Your task to perform on an android device: change the clock style Image 0: 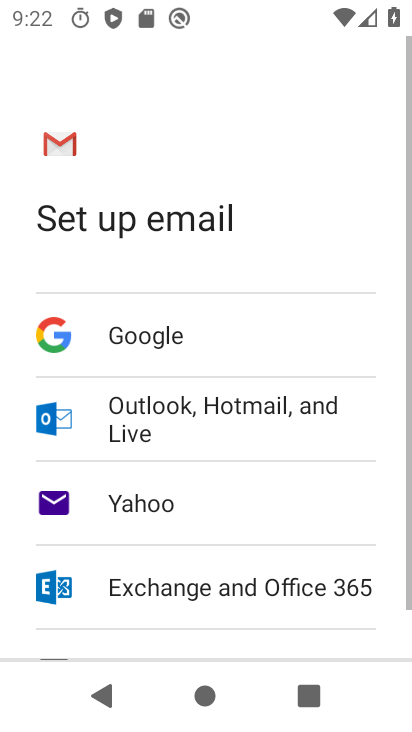
Step 0: press home button
Your task to perform on an android device: change the clock style Image 1: 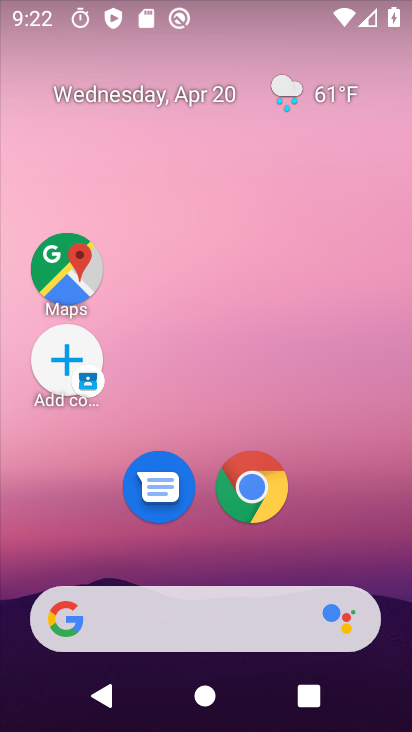
Step 1: drag from (330, 562) to (256, 169)
Your task to perform on an android device: change the clock style Image 2: 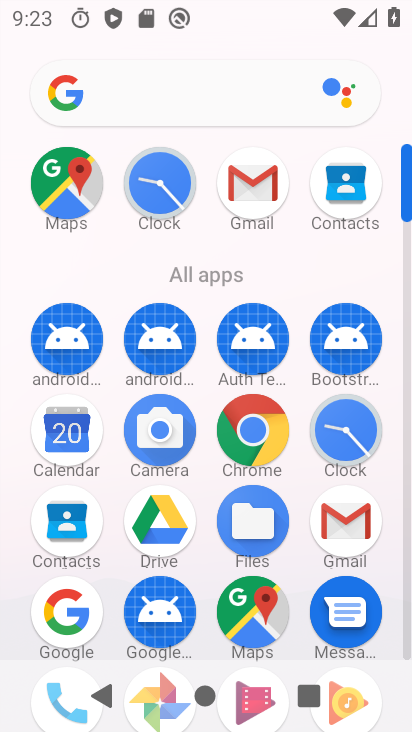
Step 2: click (337, 432)
Your task to perform on an android device: change the clock style Image 3: 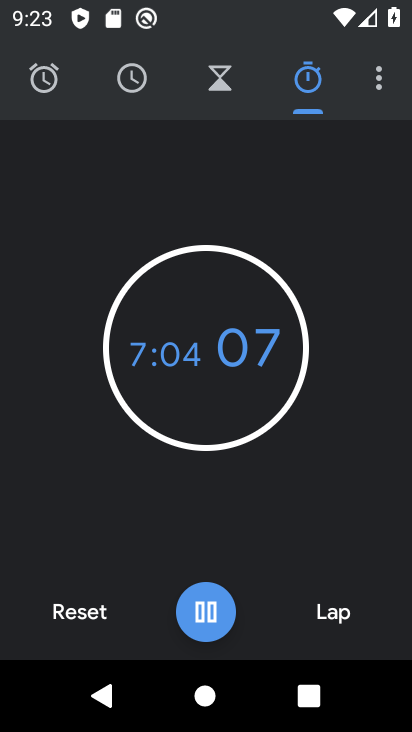
Step 3: click (379, 90)
Your task to perform on an android device: change the clock style Image 4: 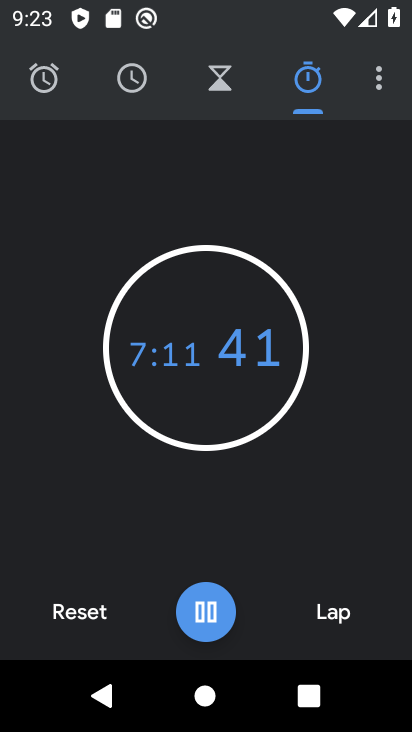
Step 4: click (376, 77)
Your task to perform on an android device: change the clock style Image 5: 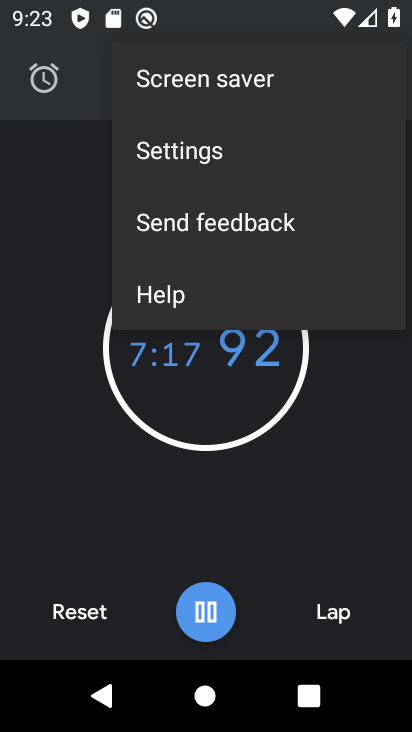
Step 5: click (267, 164)
Your task to perform on an android device: change the clock style Image 6: 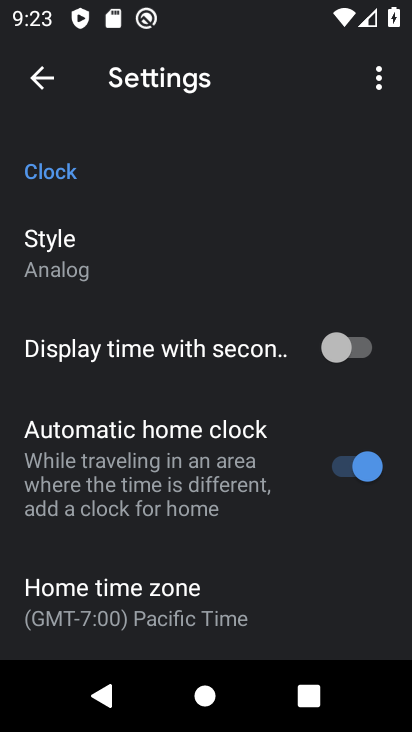
Step 6: drag from (163, 420) to (153, 303)
Your task to perform on an android device: change the clock style Image 7: 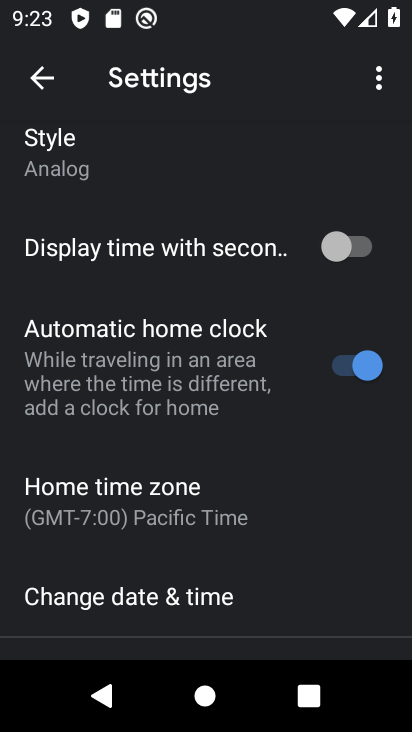
Step 7: click (94, 170)
Your task to perform on an android device: change the clock style Image 8: 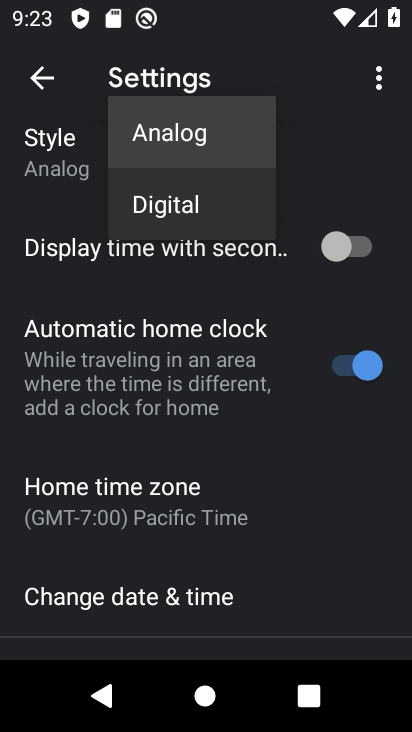
Step 8: click (179, 199)
Your task to perform on an android device: change the clock style Image 9: 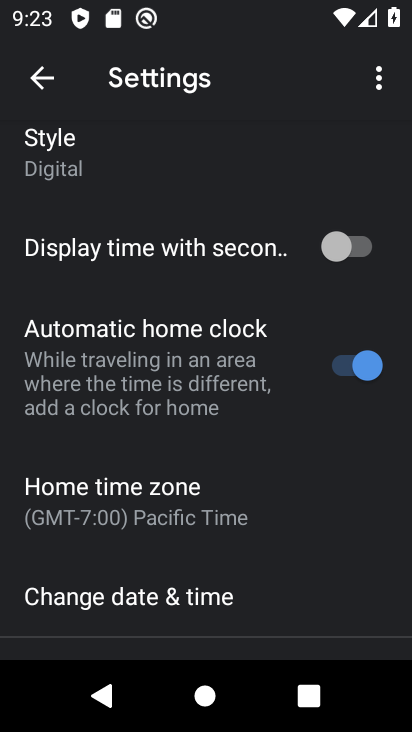
Step 9: task complete